Your task to perform on an android device: change alarm snooze length Image 0: 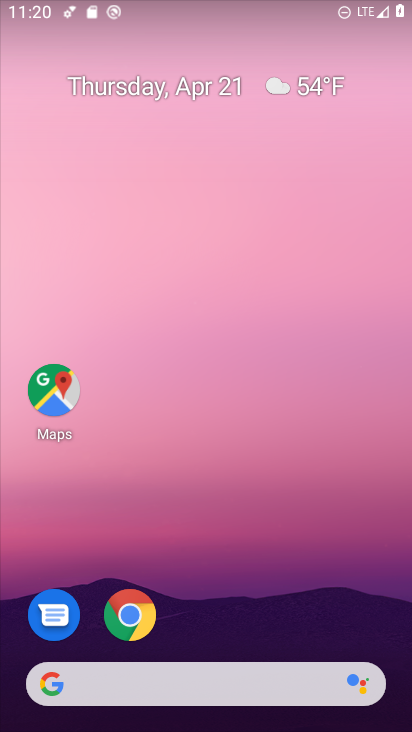
Step 0: drag from (261, 593) to (259, 175)
Your task to perform on an android device: change alarm snooze length Image 1: 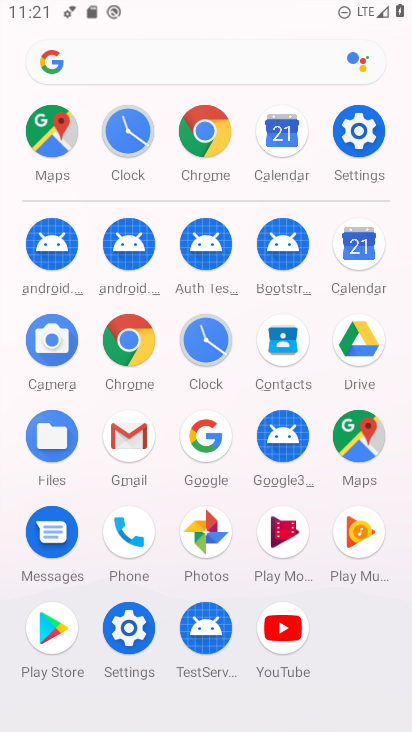
Step 1: click (218, 340)
Your task to perform on an android device: change alarm snooze length Image 2: 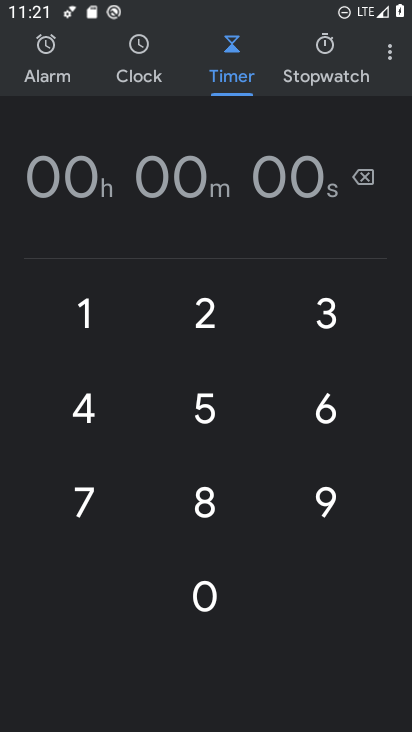
Step 2: click (384, 55)
Your task to perform on an android device: change alarm snooze length Image 3: 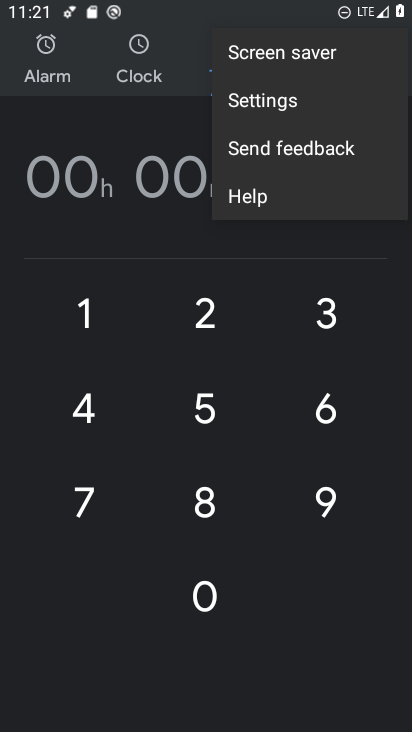
Step 3: click (340, 100)
Your task to perform on an android device: change alarm snooze length Image 4: 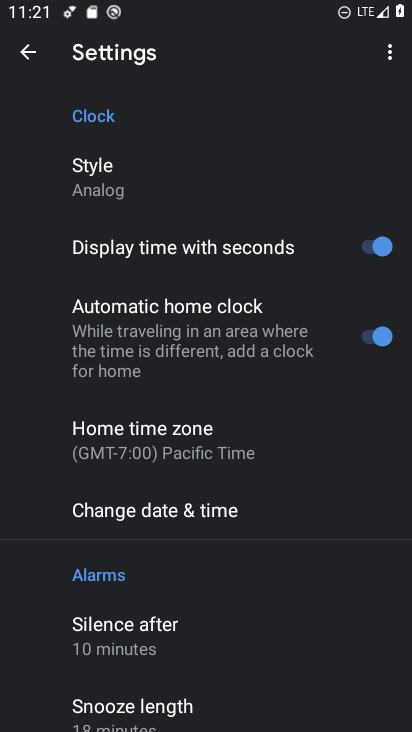
Step 4: drag from (158, 357) to (179, 224)
Your task to perform on an android device: change alarm snooze length Image 5: 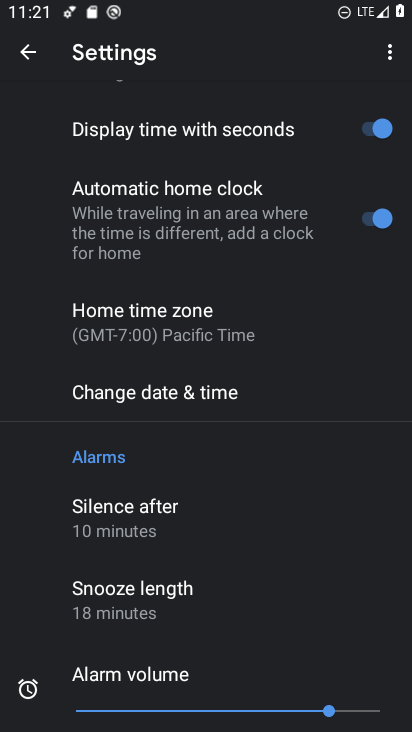
Step 5: click (148, 605)
Your task to perform on an android device: change alarm snooze length Image 6: 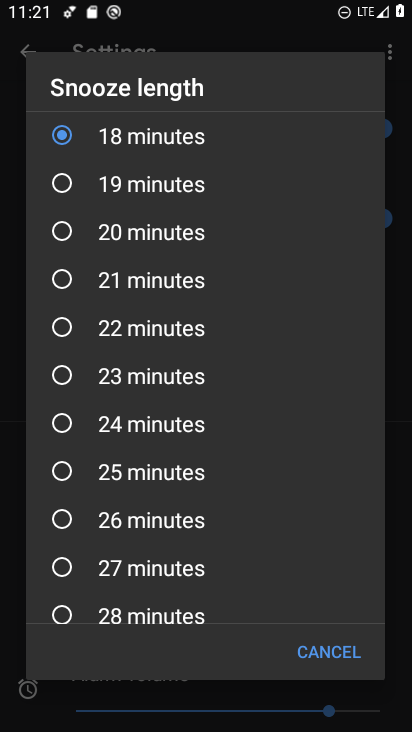
Step 6: click (141, 577)
Your task to perform on an android device: change alarm snooze length Image 7: 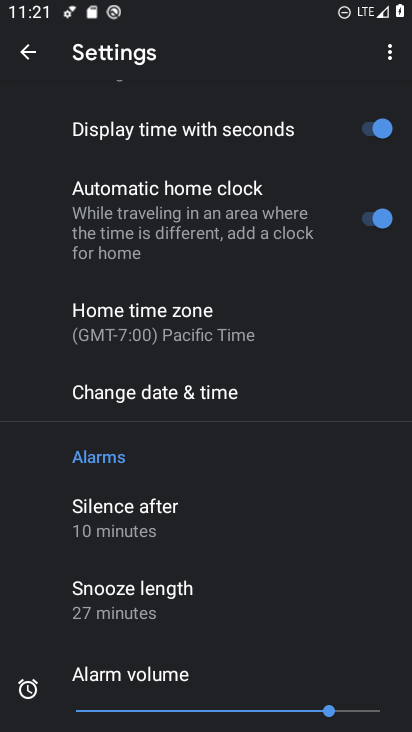
Step 7: task complete